Your task to perform on an android device: Go to Maps Image 0: 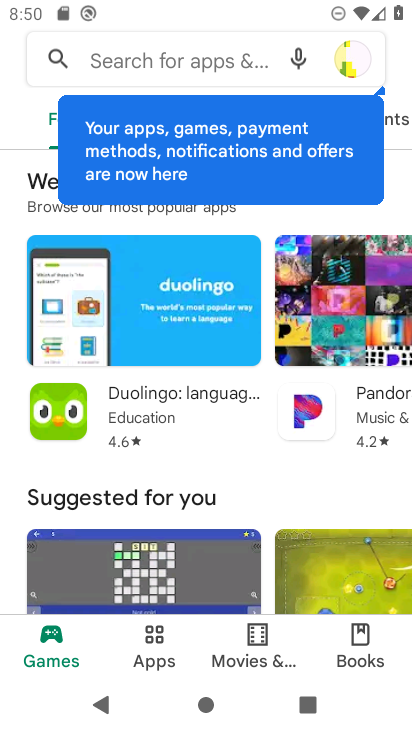
Step 0: press home button
Your task to perform on an android device: Go to Maps Image 1: 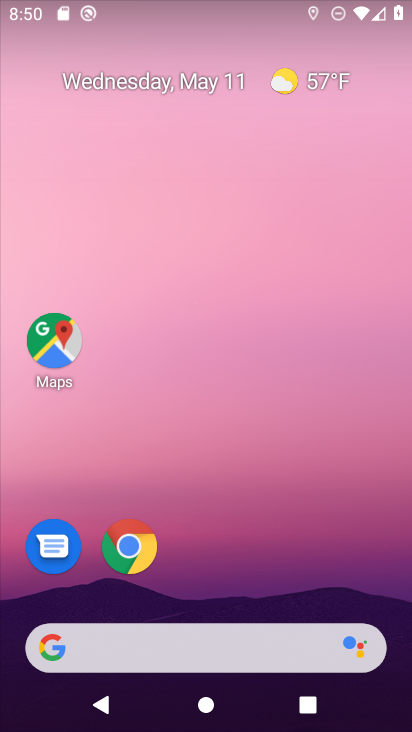
Step 1: click (68, 348)
Your task to perform on an android device: Go to Maps Image 2: 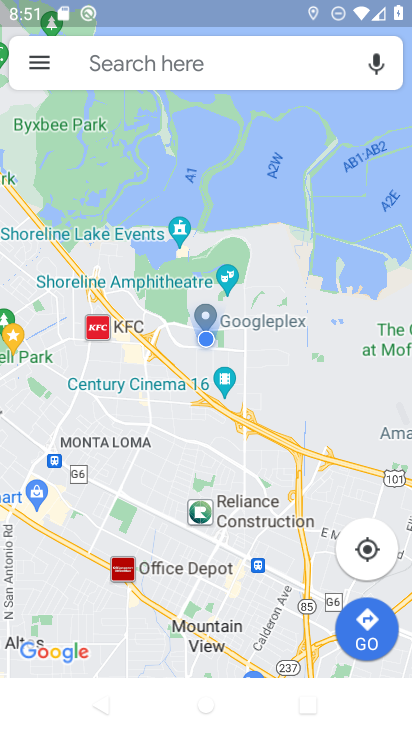
Step 2: task complete